Your task to perform on an android device: delete the emails in spam in the gmail app Image 0: 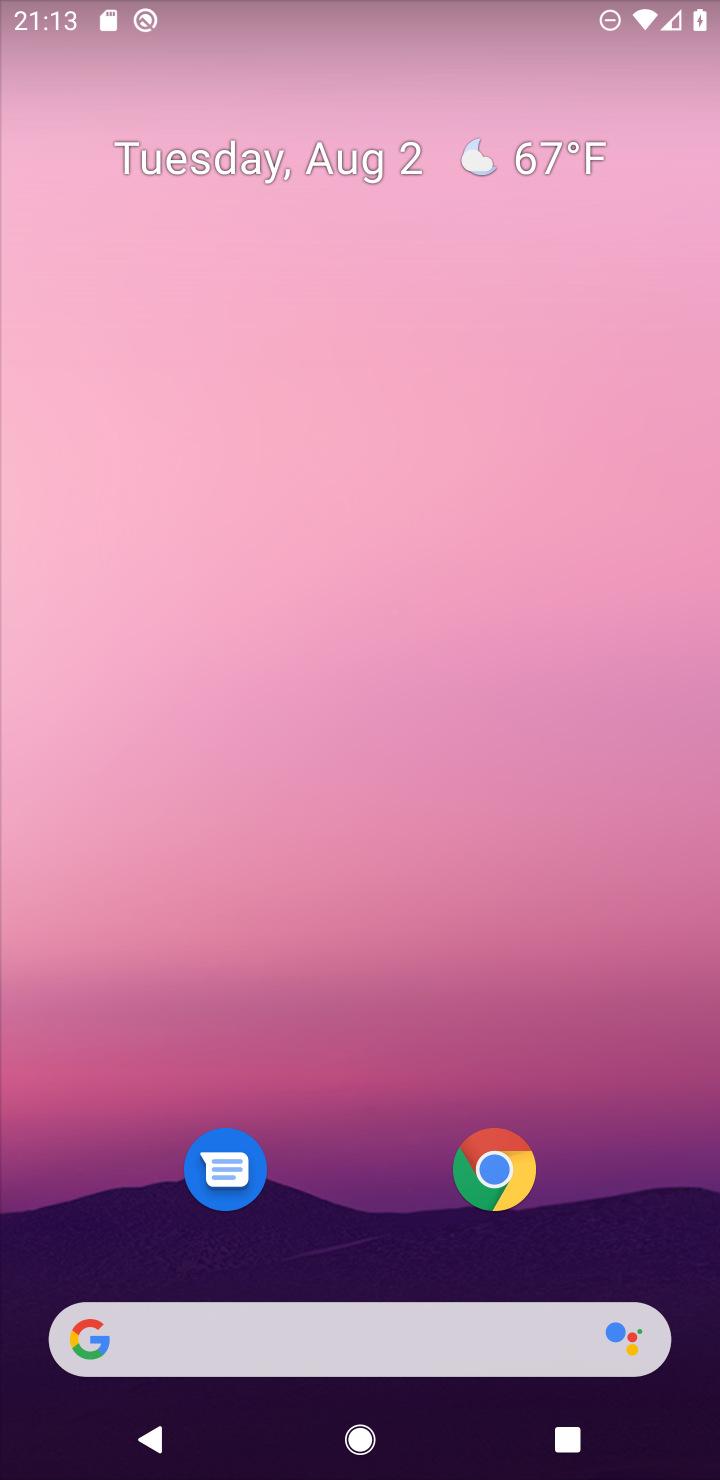
Step 0: drag from (445, 1472) to (420, 37)
Your task to perform on an android device: delete the emails in spam in the gmail app Image 1: 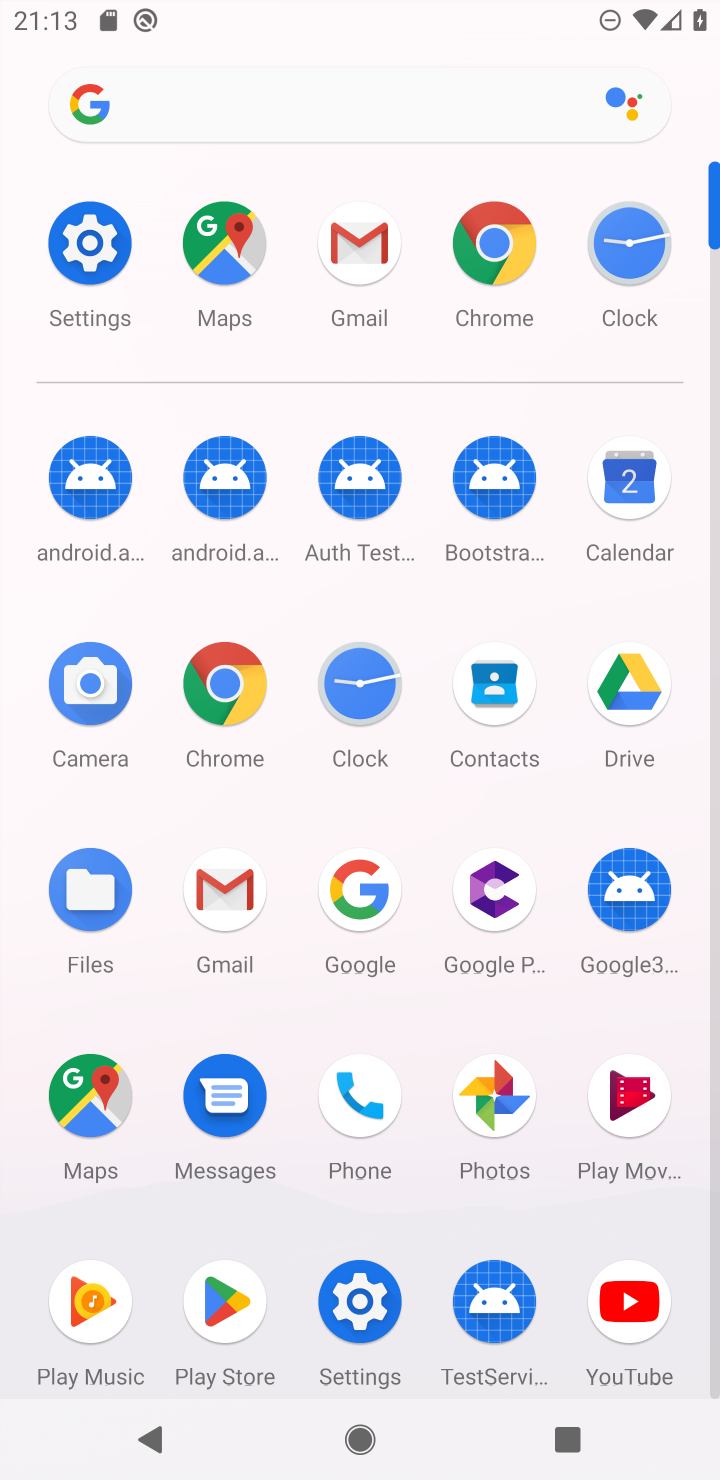
Step 1: click (241, 896)
Your task to perform on an android device: delete the emails in spam in the gmail app Image 2: 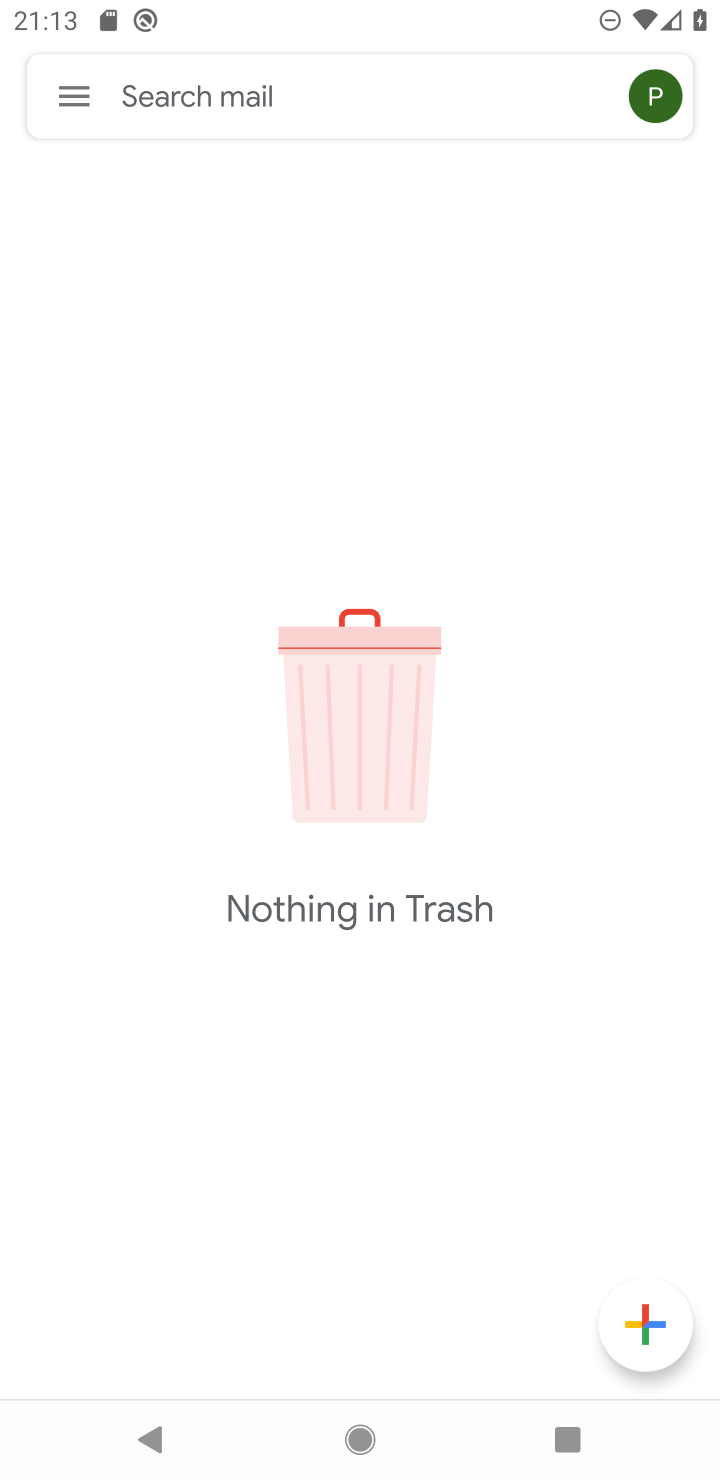
Step 2: click (72, 89)
Your task to perform on an android device: delete the emails in spam in the gmail app Image 3: 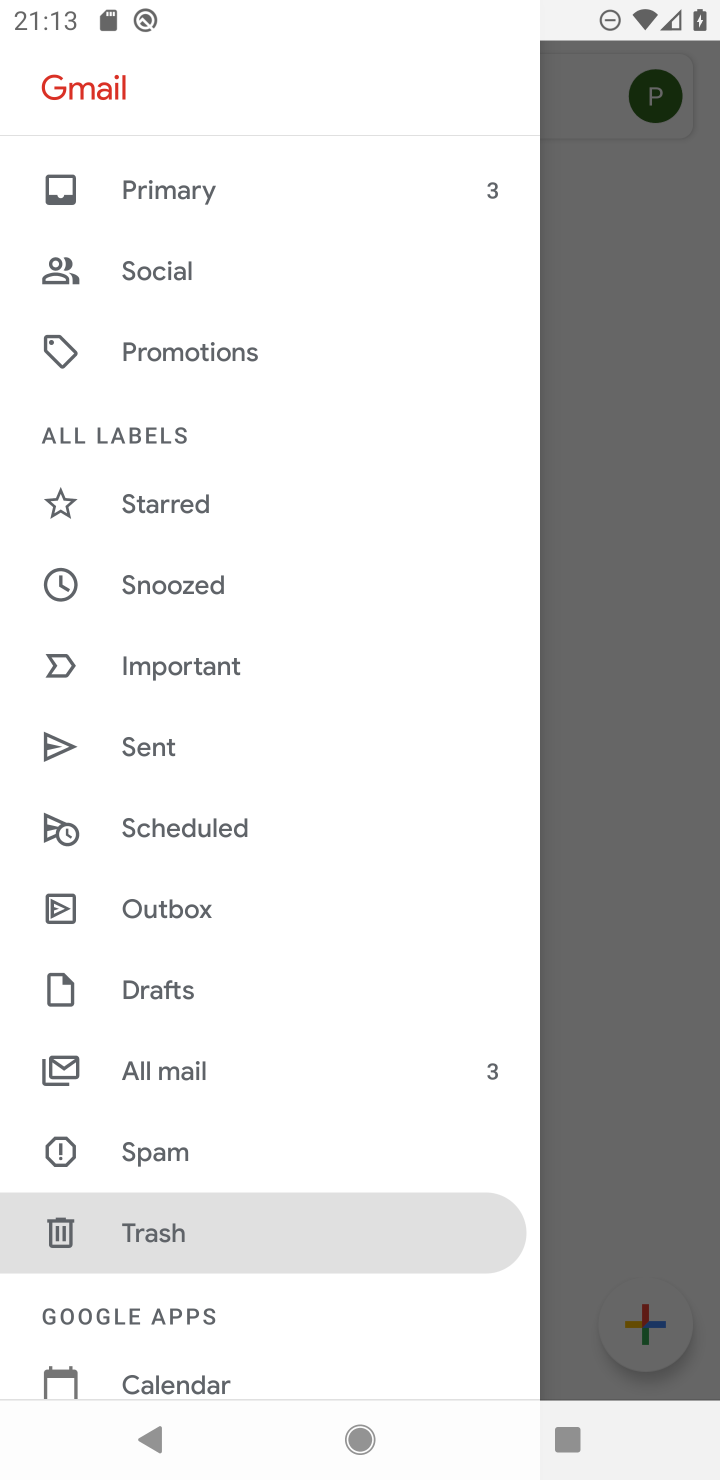
Step 3: drag from (248, 303) to (214, 1169)
Your task to perform on an android device: delete the emails in spam in the gmail app Image 4: 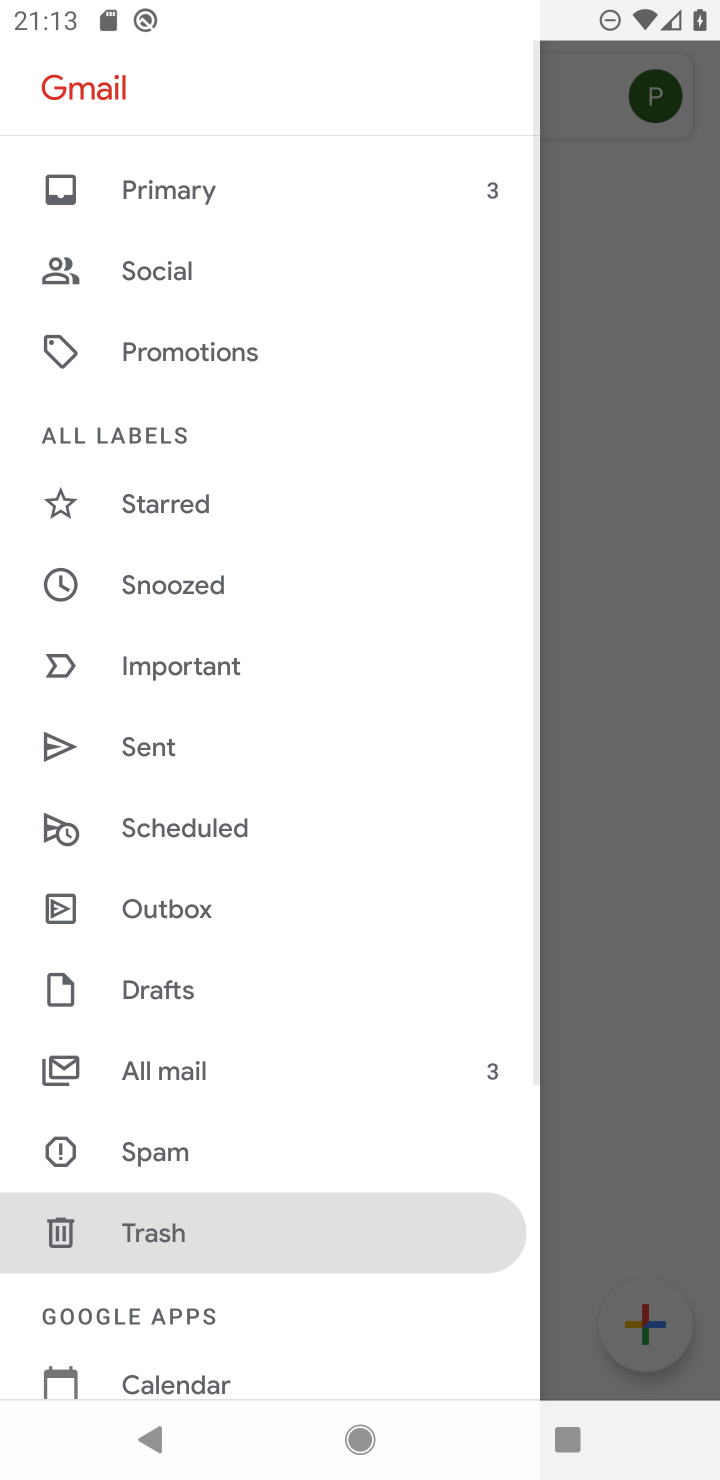
Step 4: click (160, 1145)
Your task to perform on an android device: delete the emails in spam in the gmail app Image 5: 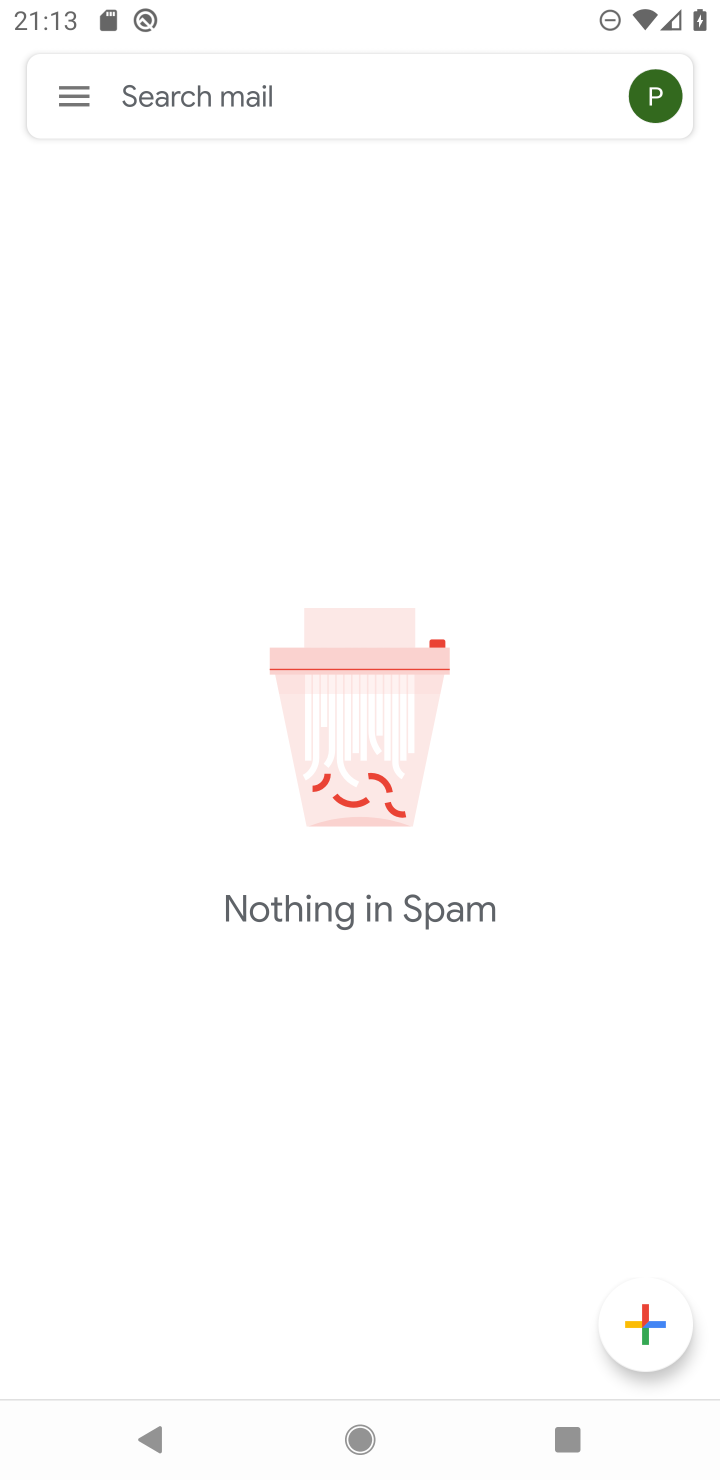
Step 5: task complete